Your task to perform on an android device: Open wifi settings Image 0: 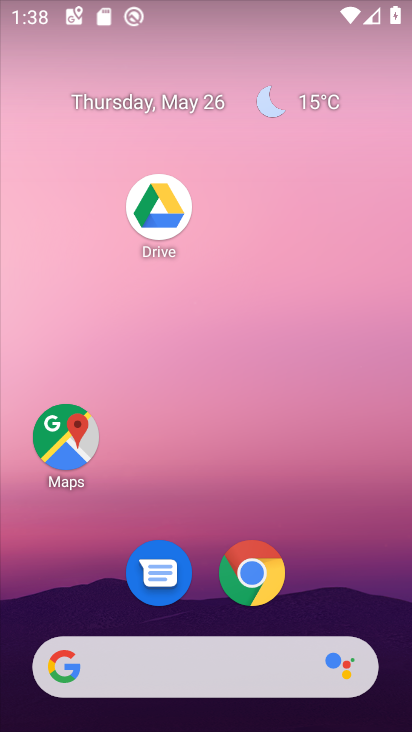
Step 0: drag from (283, 6) to (266, 629)
Your task to perform on an android device: Open wifi settings Image 1: 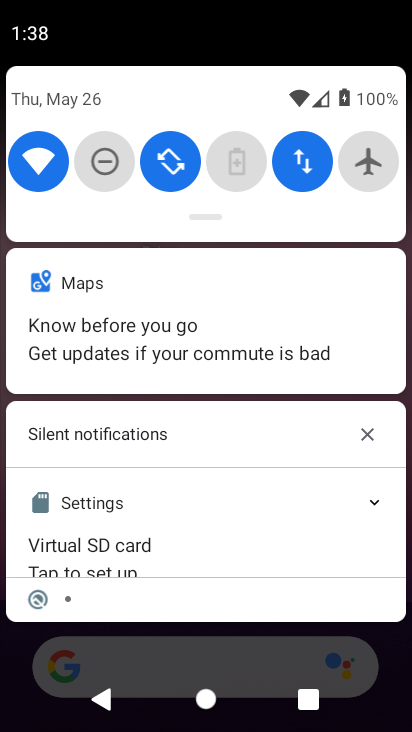
Step 1: click (49, 174)
Your task to perform on an android device: Open wifi settings Image 2: 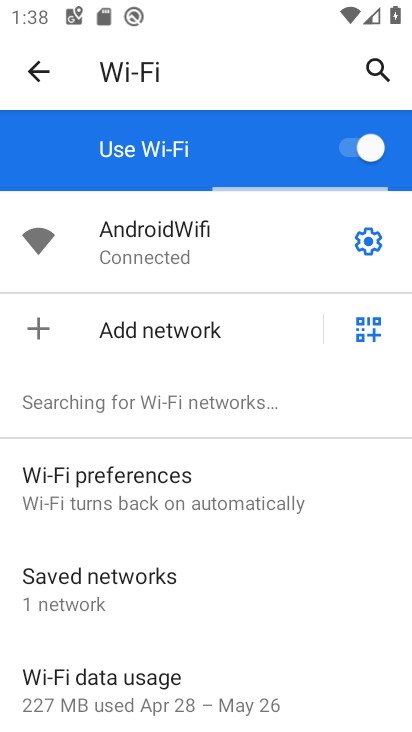
Step 2: task complete